Your task to perform on an android device: change timer sound Image 0: 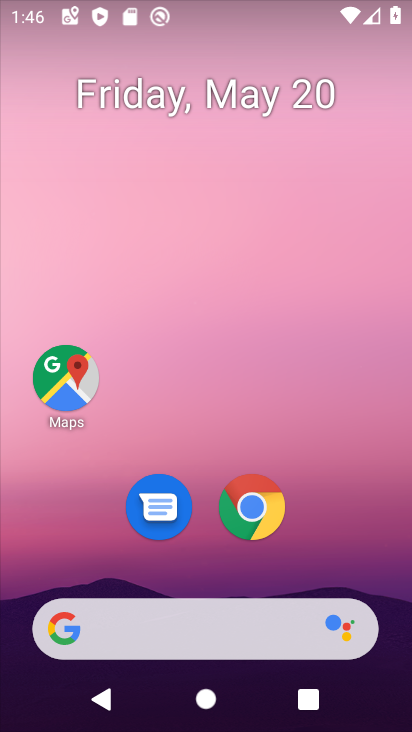
Step 0: drag from (162, 713) to (172, 55)
Your task to perform on an android device: change timer sound Image 1: 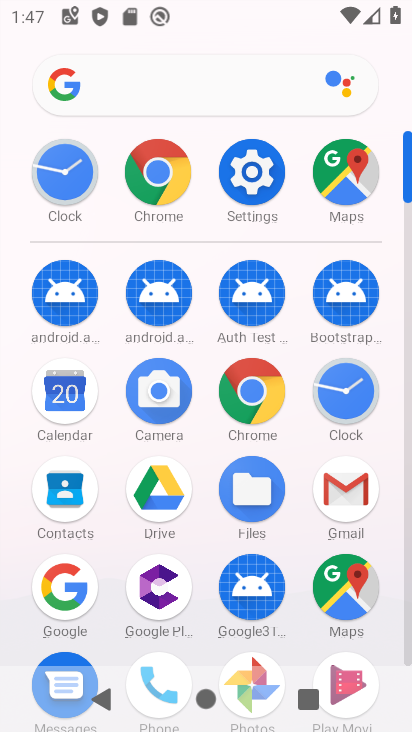
Step 1: click (345, 399)
Your task to perform on an android device: change timer sound Image 2: 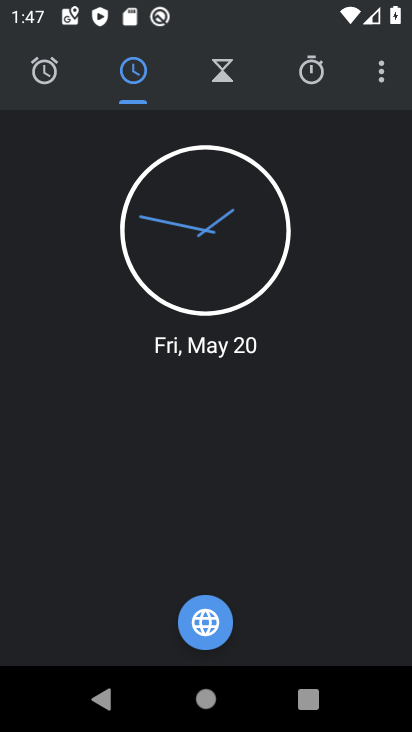
Step 2: click (382, 65)
Your task to perform on an android device: change timer sound Image 3: 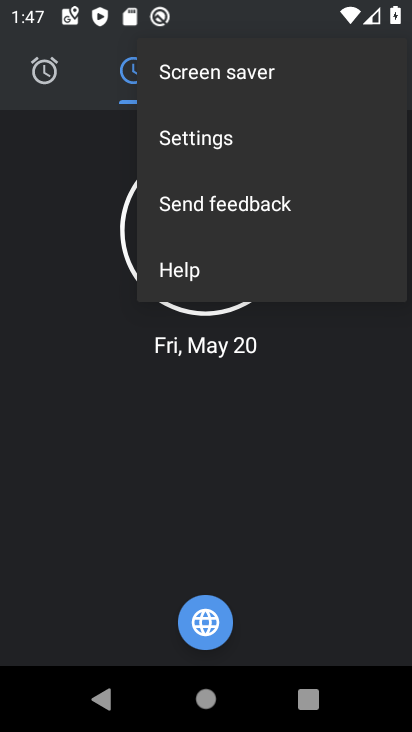
Step 3: click (202, 149)
Your task to perform on an android device: change timer sound Image 4: 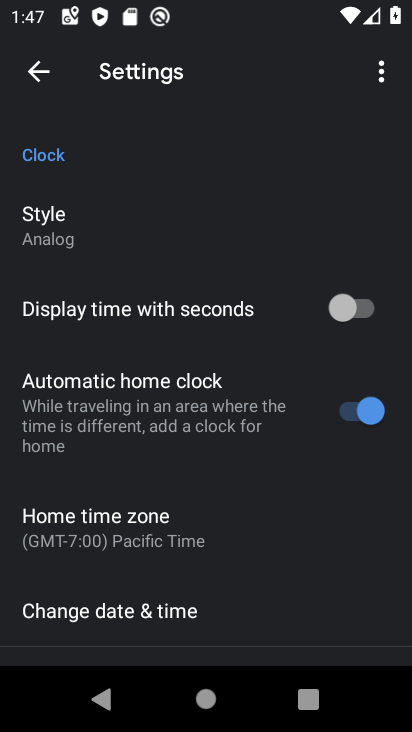
Step 4: drag from (149, 629) to (159, 202)
Your task to perform on an android device: change timer sound Image 5: 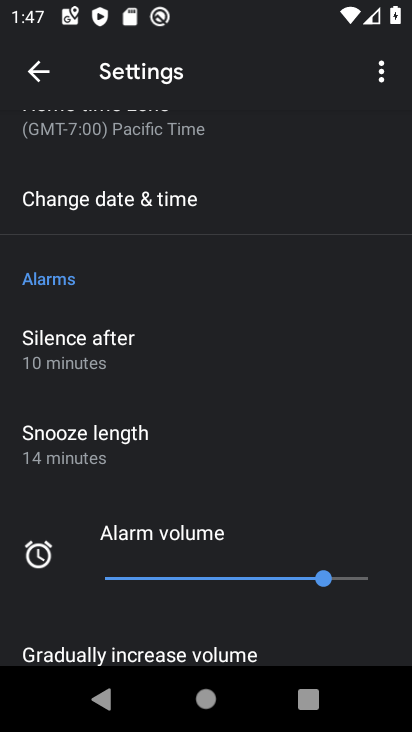
Step 5: drag from (78, 517) to (113, 90)
Your task to perform on an android device: change timer sound Image 6: 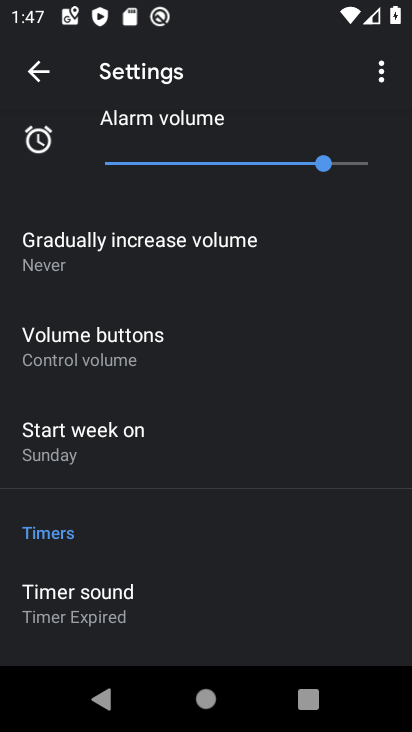
Step 6: click (109, 593)
Your task to perform on an android device: change timer sound Image 7: 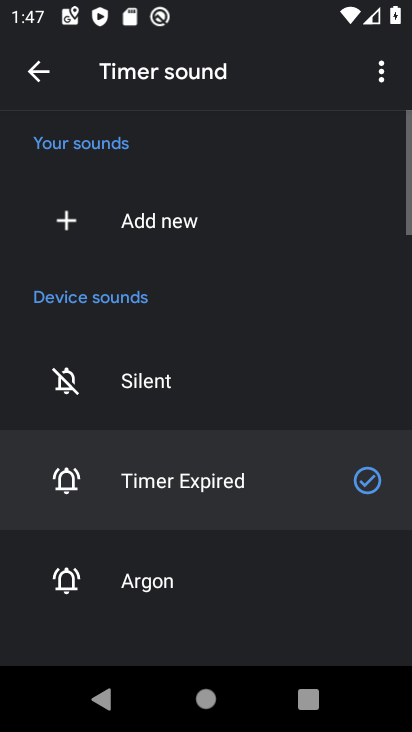
Step 7: click (144, 585)
Your task to perform on an android device: change timer sound Image 8: 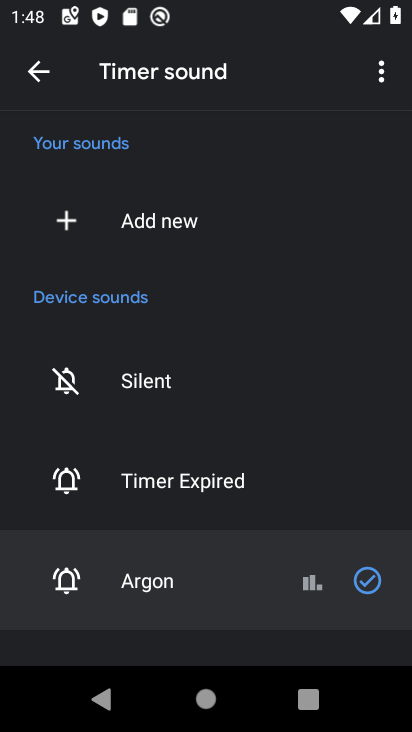
Step 8: task complete